Your task to perform on an android device: remove spam from my inbox in the gmail app Image 0: 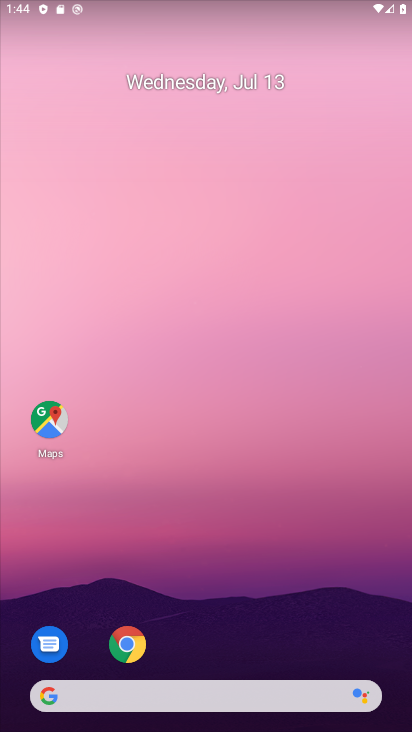
Step 0: drag from (188, 626) to (254, 10)
Your task to perform on an android device: remove spam from my inbox in the gmail app Image 1: 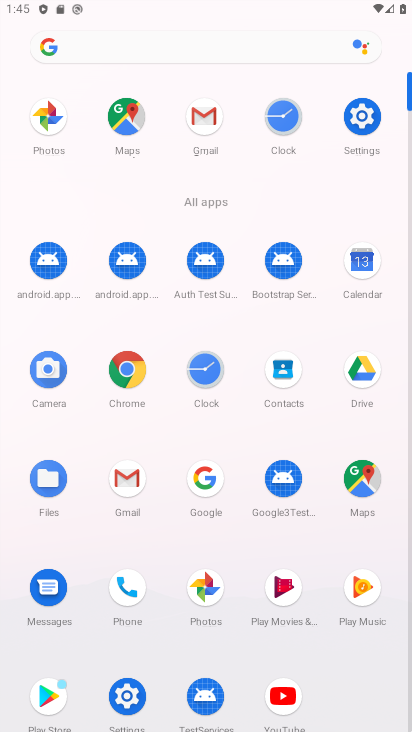
Step 1: click (198, 104)
Your task to perform on an android device: remove spam from my inbox in the gmail app Image 2: 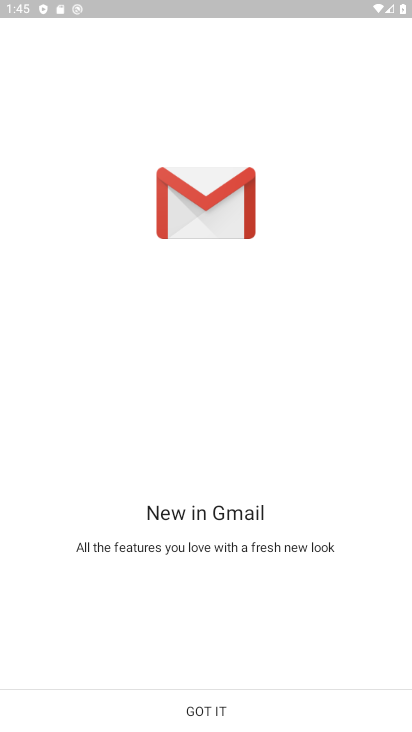
Step 2: click (215, 713)
Your task to perform on an android device: remove spam from my inbox in the gmail app Image 3: 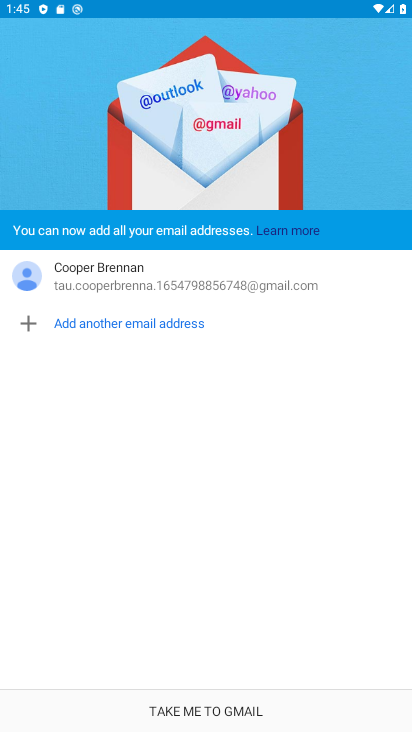
Step 3: click (185, 709)
Your task to perform on an android device: remove spam from my inbox in the gmail app Image 4: 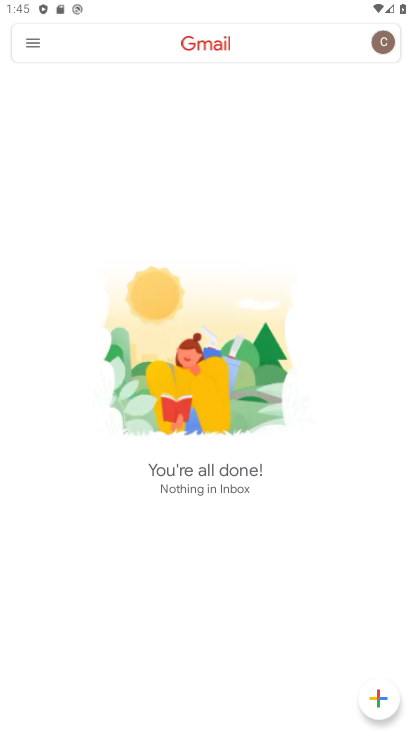
Step 4: click (40, 46)
Your task to perform on an android device: remove spam from my inbox in the gmail app Image 5: 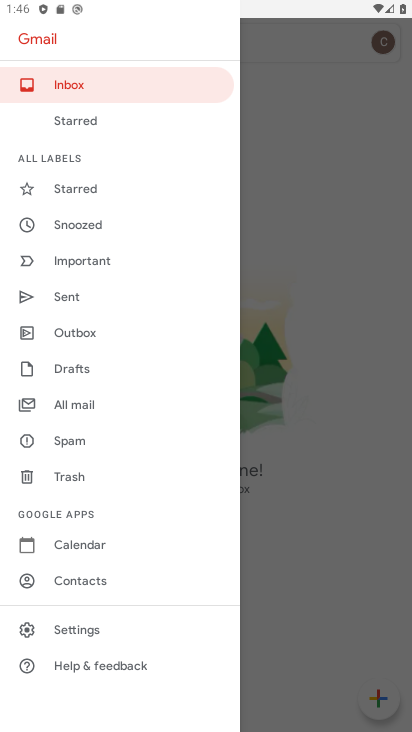
Step 5: click (100, 444)
Your task to perform on an android device: remove spam from my inbox in the gmail app Image 6: 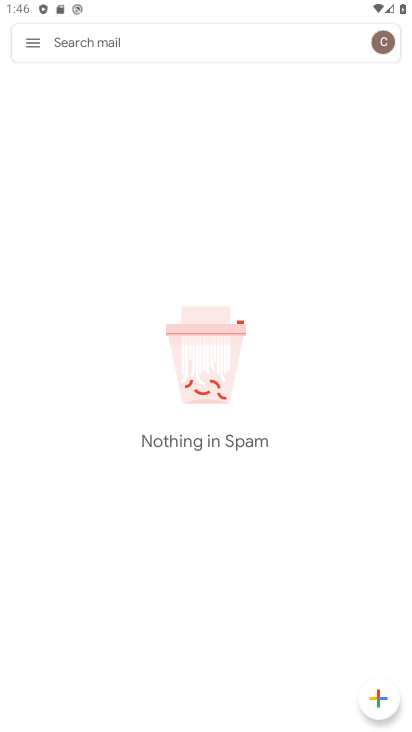
Step 6: task complete